Your task to perform on an android device: Search for vegetarian restaurants on Maps Image 0: 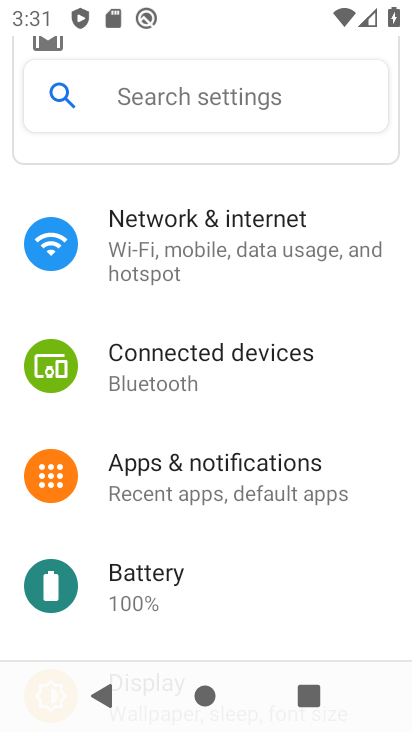
Step 0: press back button
Your task to perform on an android device: Search for vegetarian restaurants on Maps Image 1: 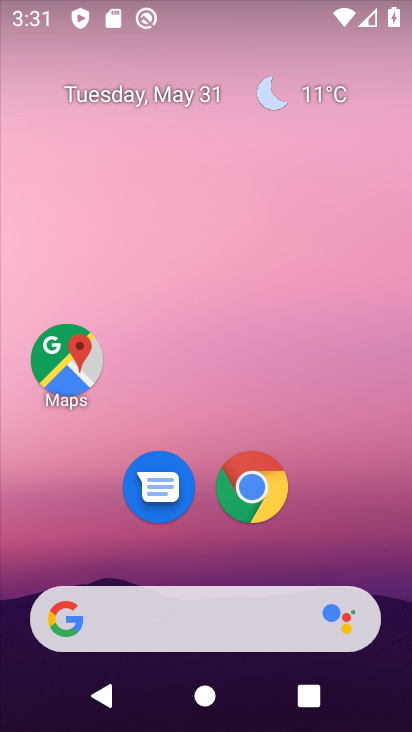
Step 1: click (65, 362)
Your task to perform on an android device: Search for vegetarian restaurants on Maps Image 2: 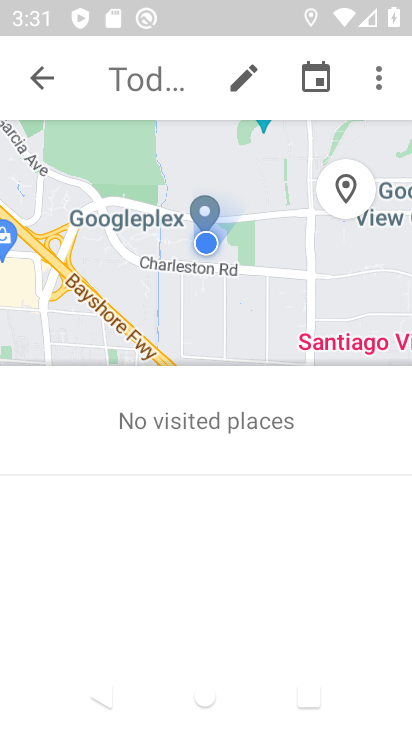
Step 2: click (42, 73)
Your task to perform on an android device: Search for vegetarian restaurants on Maps Image 3: 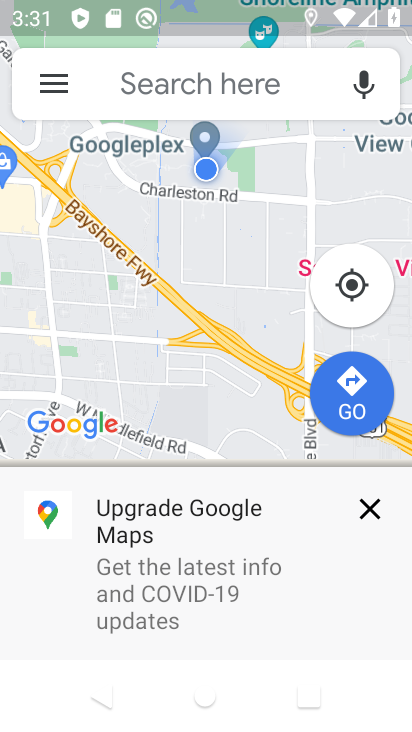
Step 3: click (169, 83)
Your task to perform on an android device: Search for vegetarian restaurants on Maps Image 4: 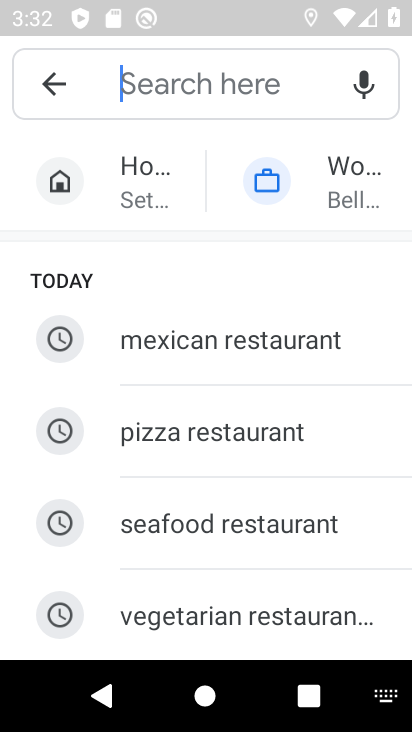
Step 4: type "vegetarian restaurants"
Your task to perform on an android device: Search for vegetarian restaurants on Maps Image 5: 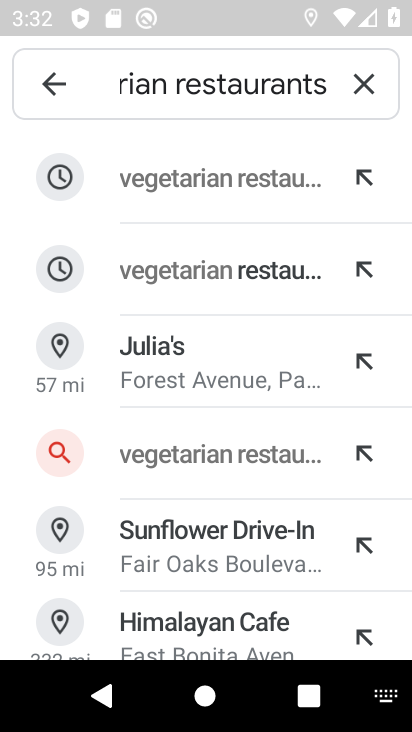
Step 5: click (219, 185)
Your task to perform on an android device: Search for vegetarian restaurants on Maps Image 6: 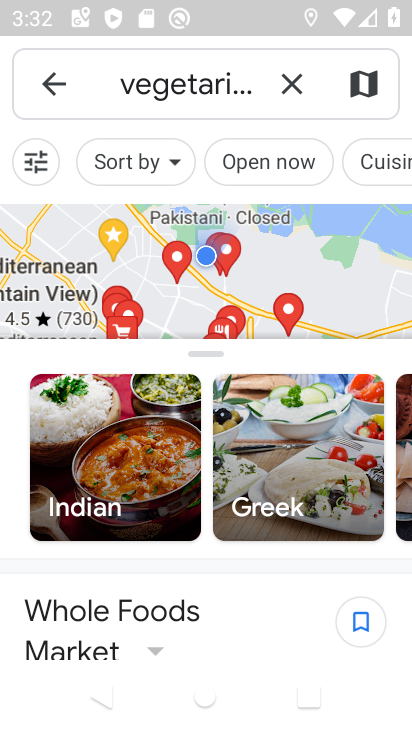
Step 6: task complete